Your task to perform on an android device: Search for sushi restaurants on Maps Image 0: 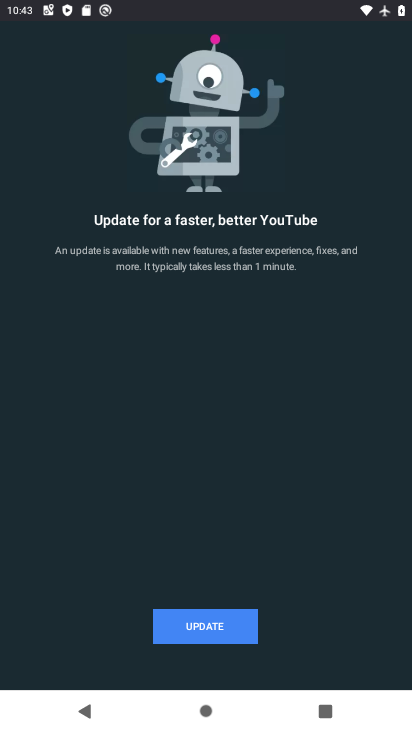
Step 0: press home button
Your task to perform on an android device: Search for sushi restaurants on Maps Image 1: 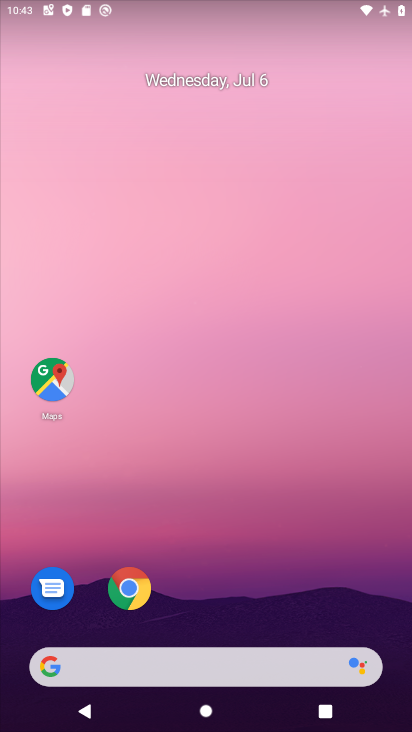
Step 1: drag from (270, 570) to (246, 188)
Your task to perform on an android device: Search for sushi restaurants on Maps Image 2: 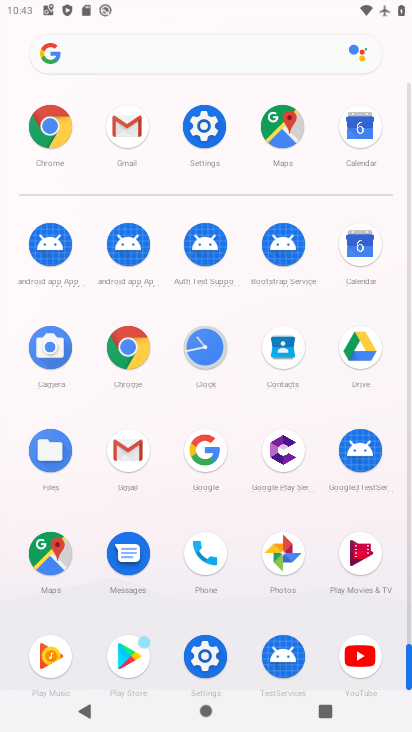
Step 2: click (62, 548)
Your task to perform on an android device: Search for sushi restaurants on Maps Image 3: 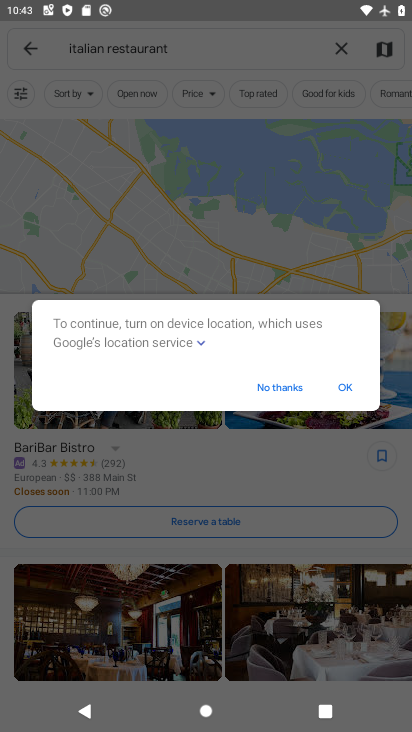
Step 3: click (334, 383)
Your task to perform on an android device: Search for sushi restaurants on Maps Image 4: 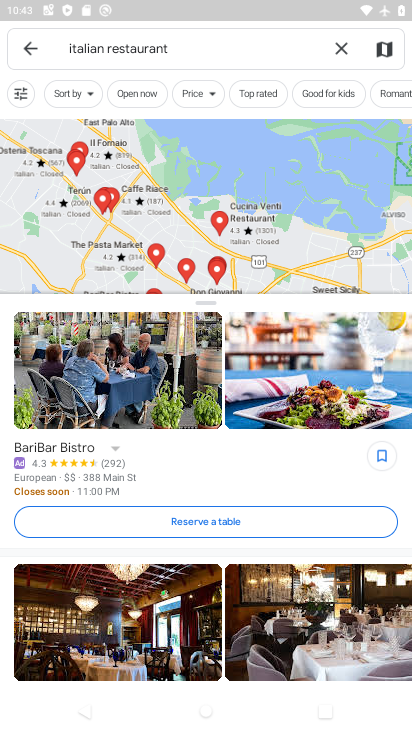
Step 4: click (342, 48)
Your task to perform on an android device: Search for sushi restaurants on Maps Image 5: 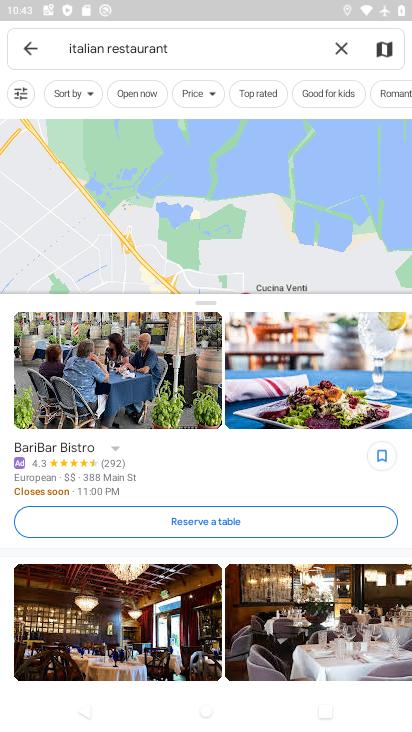
Step 5: click (342, 45)
Your task to perform on an android device: Search for sushi restaurants on Maps Image 6: 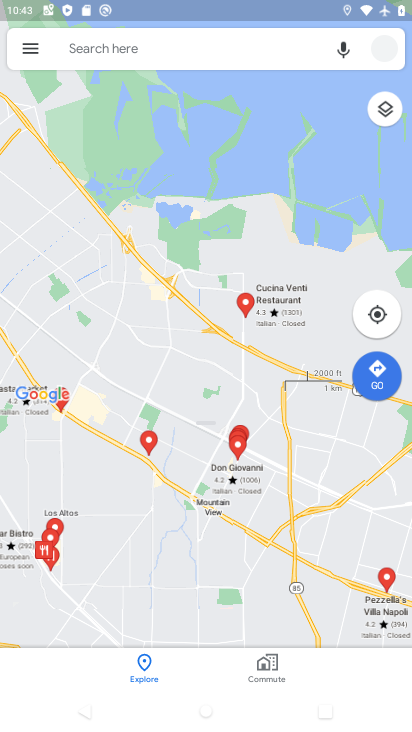
Step 6: click (342, 45)
Your task to perform on an android device: Search for sushi restaurants on Maps Image 7: 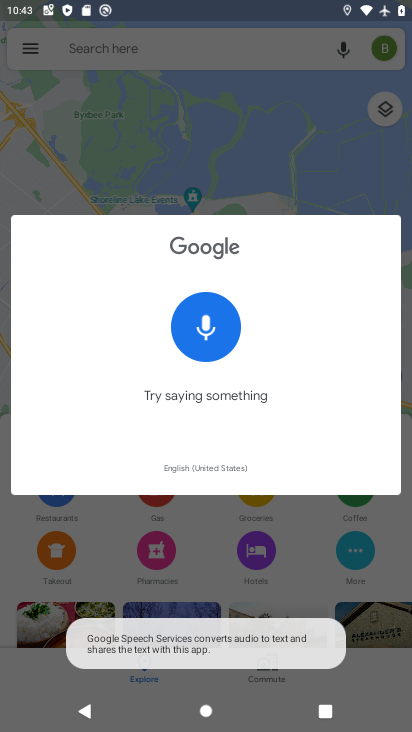
Step 7: click (258, 116)
Your task to perform on an android device: Search for sushi restaurants on Maps Image 8: 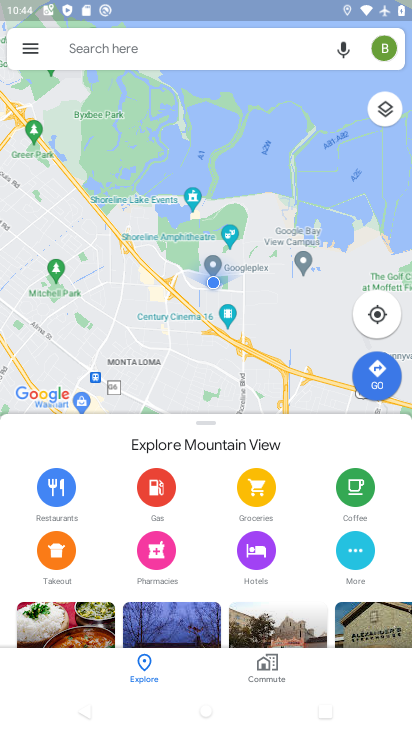
Step 8: click (180, 32)
Your task to perform on an android device: Search for sushi restaurants on Maps Image 9: 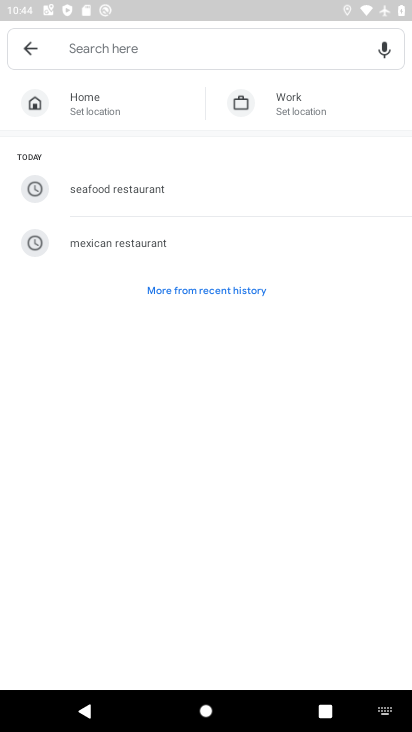
Step 9: type " sushi restaurants "
Your task to perform on an android device: Search for sushi restaurants on Maps Image 10: 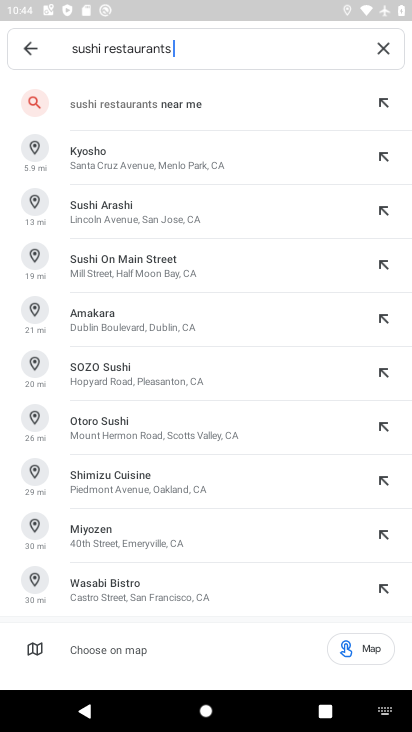
Step 10: click (186, 102)
Your task to perform on an android device: Search for sushi restaurants on Maps Image 11: 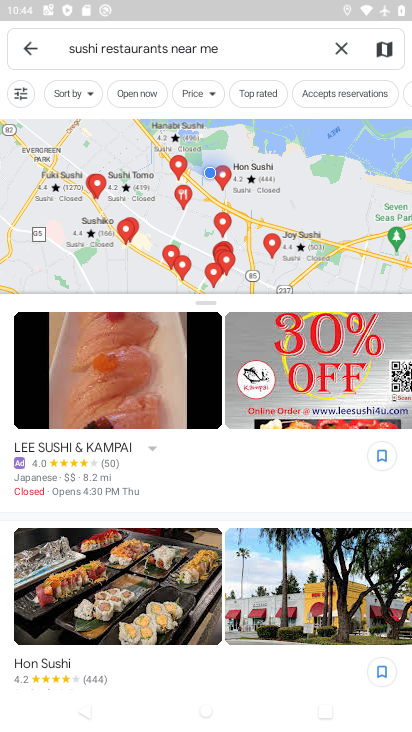
Step 11: task complete